Your task to perform on an android device: Go to ESPN.com Image 0: 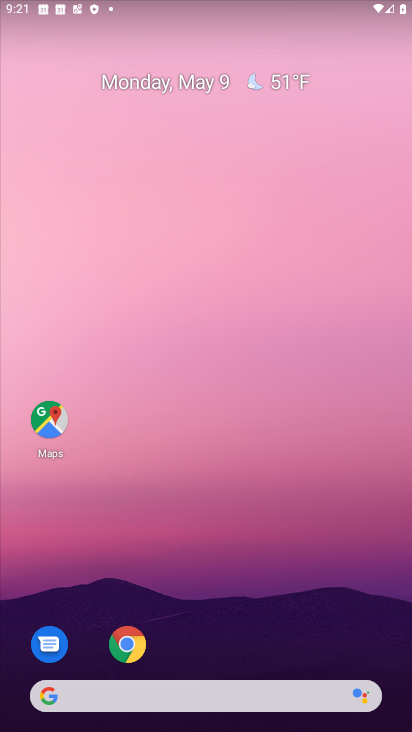
Step 0: drag from (205, 662) to (139, 91)
Your task to perform on an android device: Go to ESPN.com Image 1: 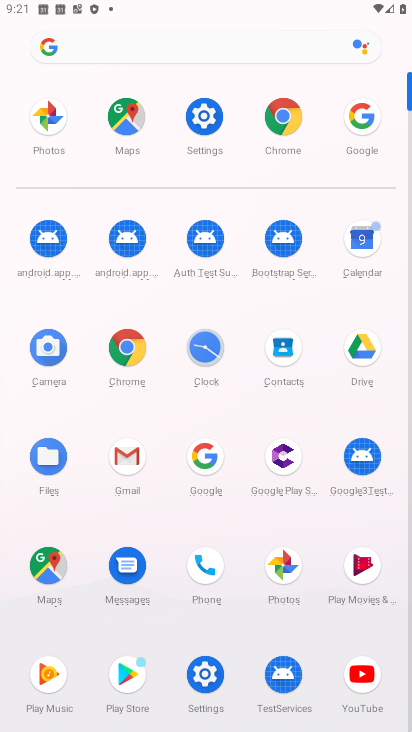
Step 1: click (288, 114)
Your task to perform on an android device: Go to ESPN.com Image 2: 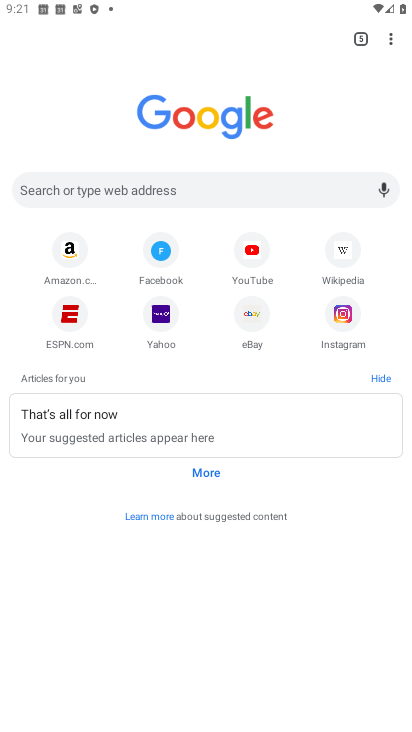
Step 2: click (59, 322)
Your task to perform on an android device: Go to ESPN.com Image 3: 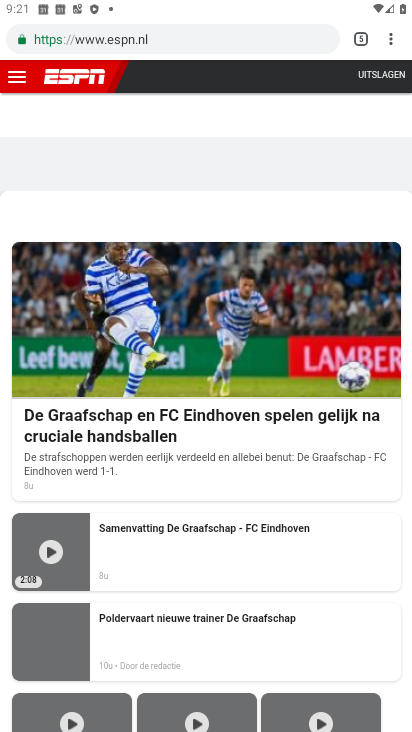
Step 3: task complete